Your task to perform on an android device: move a message to another label in the gmail app Image 0: 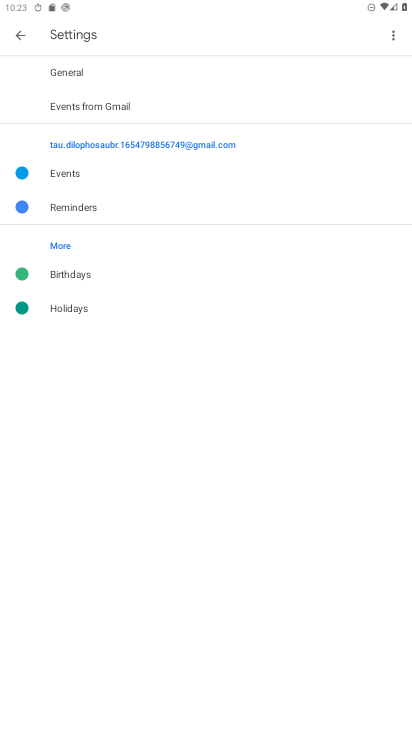
Step 0: press home button
Your task to perform on an android device: move a message to another label in the gmail app Image 1: 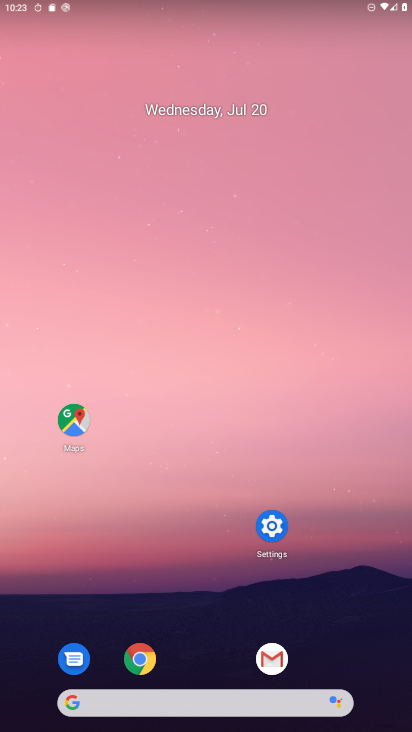
Step 1: click (287, 649)
Your task to perform on an android device: move a message to another label in the gmail app Image 2: 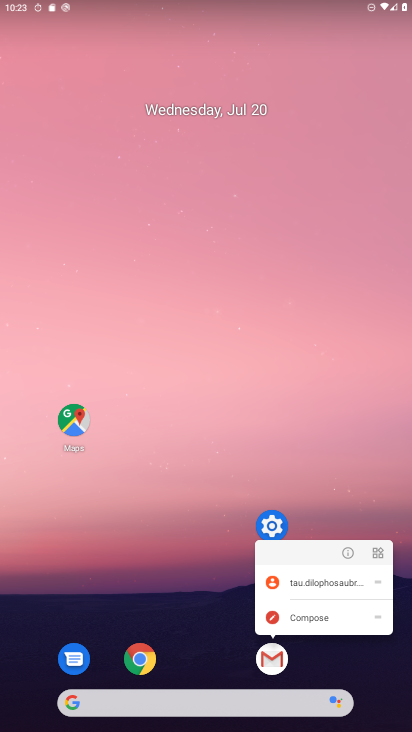
Step 2: click (265, 654)
Your task to perform on an android device: move a message to another label in the gmail app Image 3: 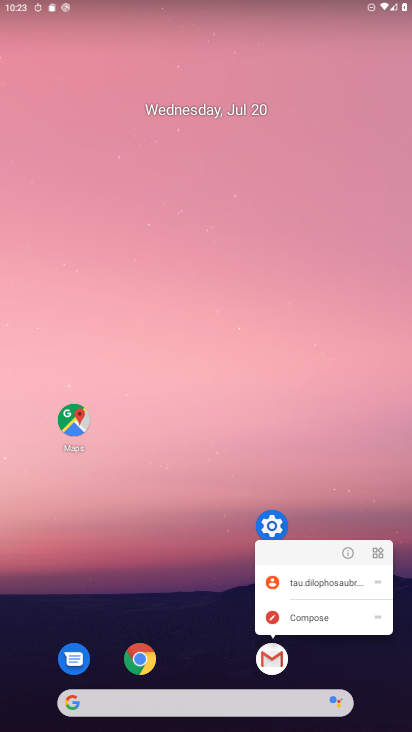
Step 3: click (274, 665)
Your task to perform on an android device: move a message to another label in the gmail app Image 4: 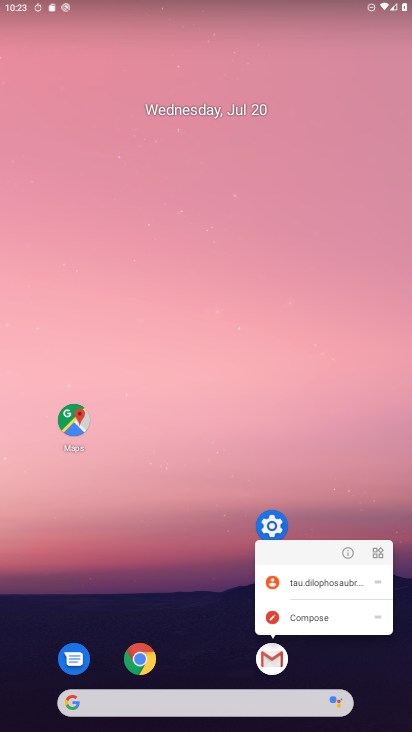
Step 4: click (274, 665)
Your task to perform on an android device: move a message to another label in the gmail app Image 5: 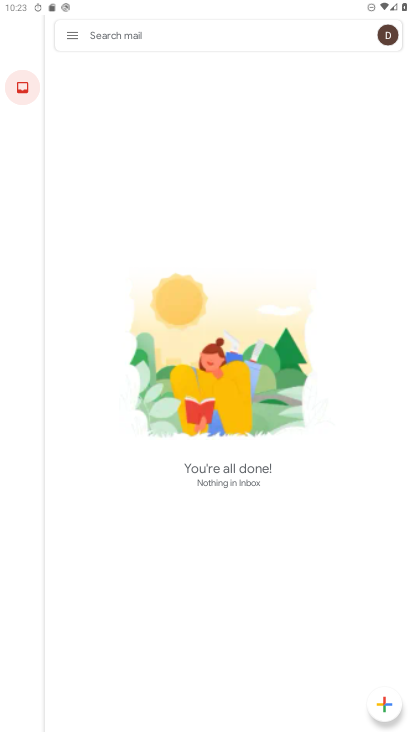
Step 5: click (68, 37)
Your task to perform on an android device: move a message to another label in the gmail app Image 6: 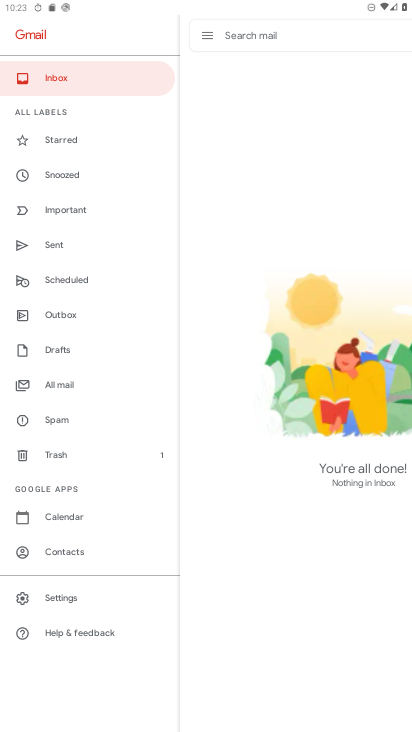
Step 6: click (73, 598)
Your task to perform on an android device: move a message to another label in the gmail app Image 7: 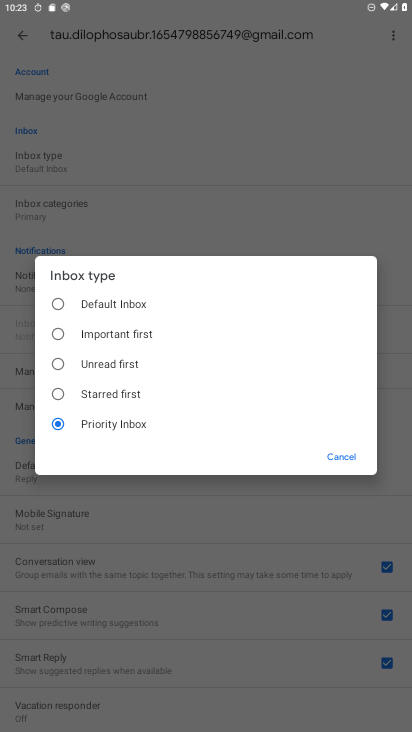
Step 7: click (175, 499)
Your task to perform on an android device: move a message to another label in the gmail app Image 8: 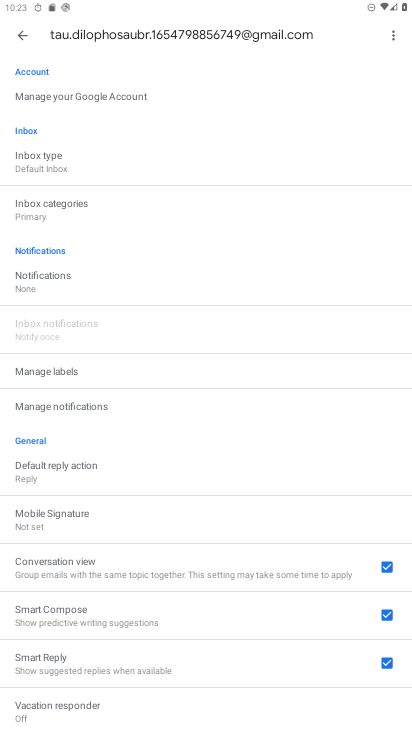
Step 8: click (63, 377)
Your task to perform on an android device: move a message to another label in the gmail app Image 9: 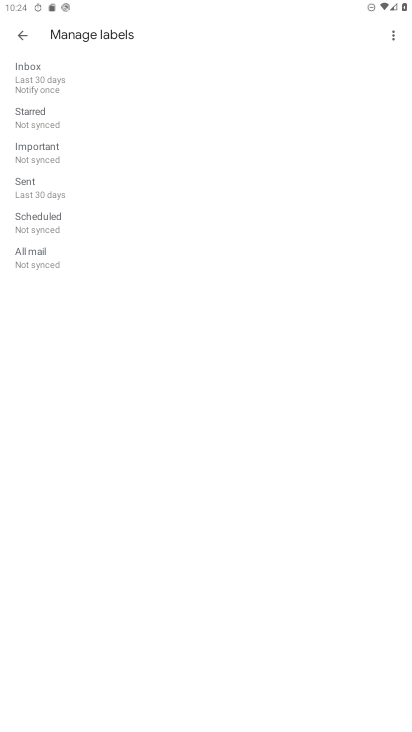
Step 9: task complete